Your task to perform on an android device: stop showing notifications on the lock screen Image 0: 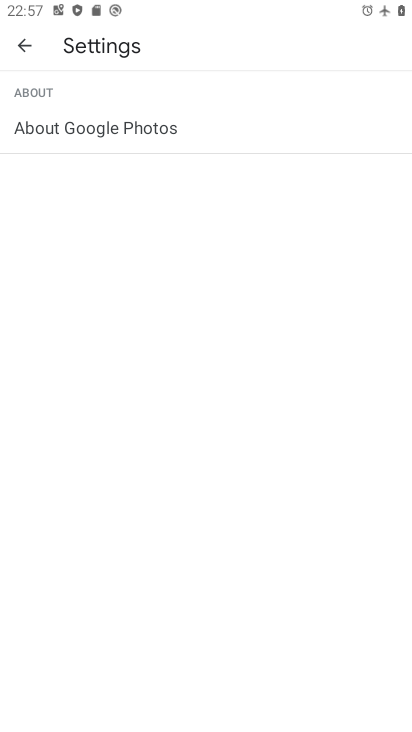
Step 0: press back button
Your task to perform on an android device: stop showing notifications on the lock screen Image 1: 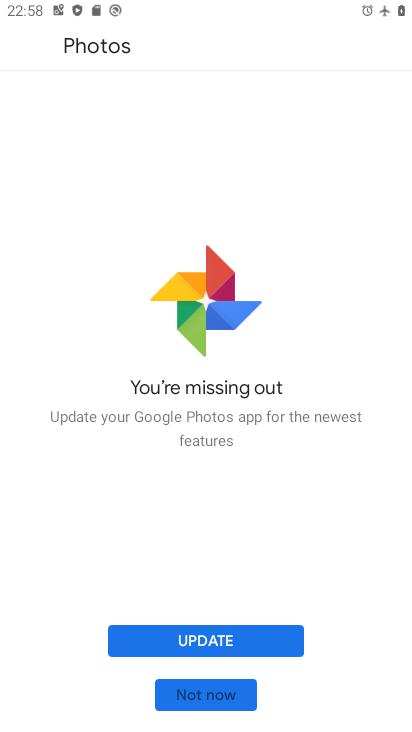
Step 1: press home button
Your task to perform on an android device: stop showing notifications on the lock screen Image 2: 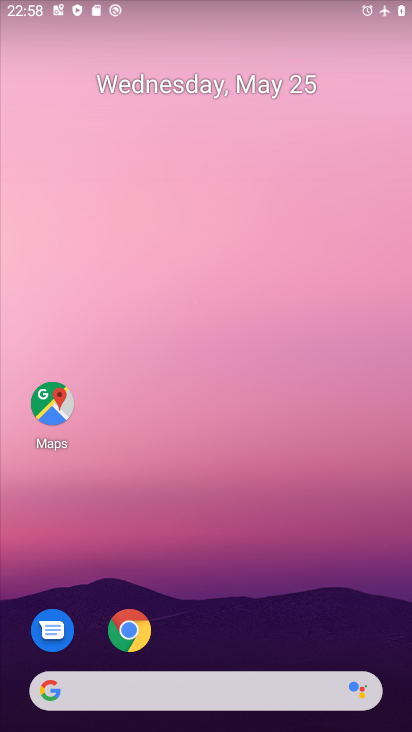
Step 2: drag from (254, 646) to (211, 118)
Your task to perform on an android device: stop showing notifications on the lock screen Image 3: 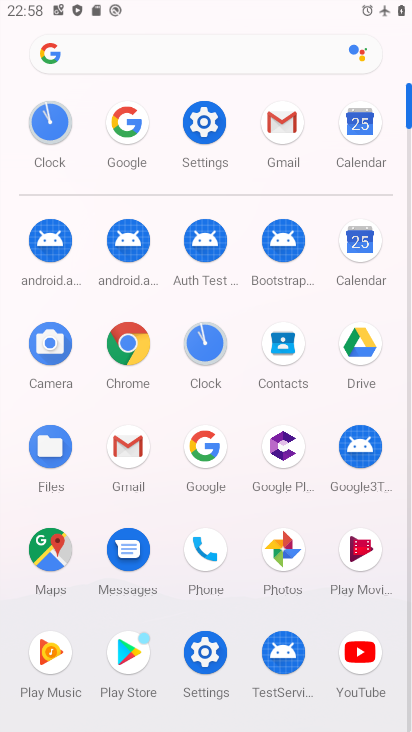
Step 3: click (211, 112)
Your task to perform on an android device: stop showing notifications on the lock screen Image 4: 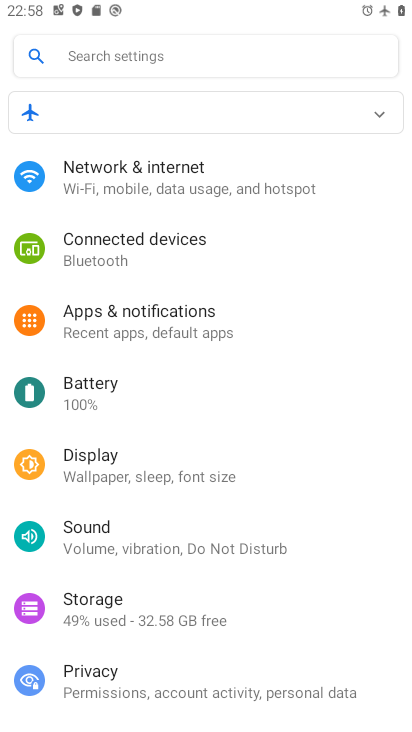
Step 4: click (252, 310)
Your task to perform on an android device: stop showing notifications on the lock screen Image 5: 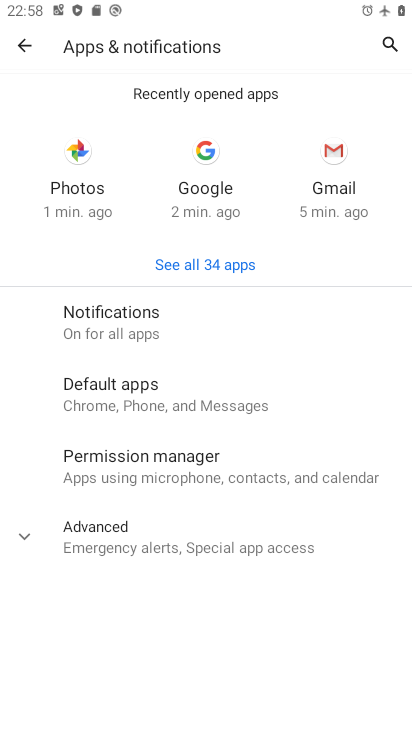
Step 5: click (158, 324)
Your task to perform on an android device: stop showing notifications on the lock screen Image 6: 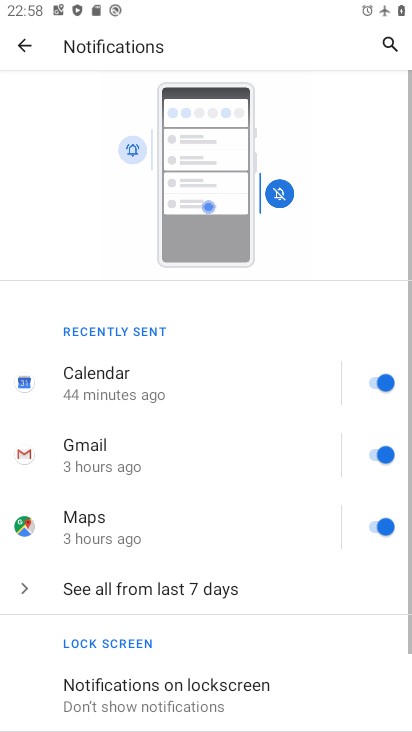
Step 6: drag from (257, 686) to (221, 253)
Your task to perform on an android device: stop showing notifications on the lock screen Image 7: 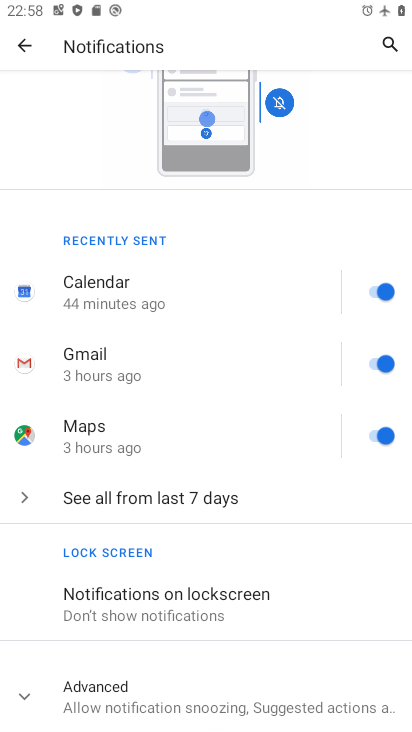
Step 7: click (183, 616)
Your task to perform on an android device: stop showing notifications on the lock screen Image 8: 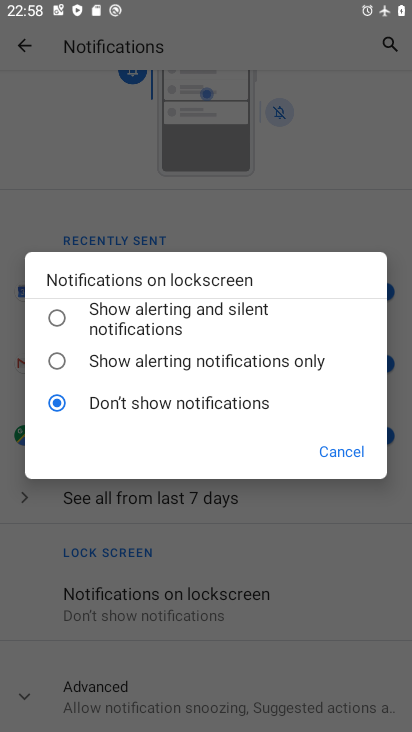
Step 8: task complete